Your task to perform on an android device: turn pop-ups off in chrome Image 0: 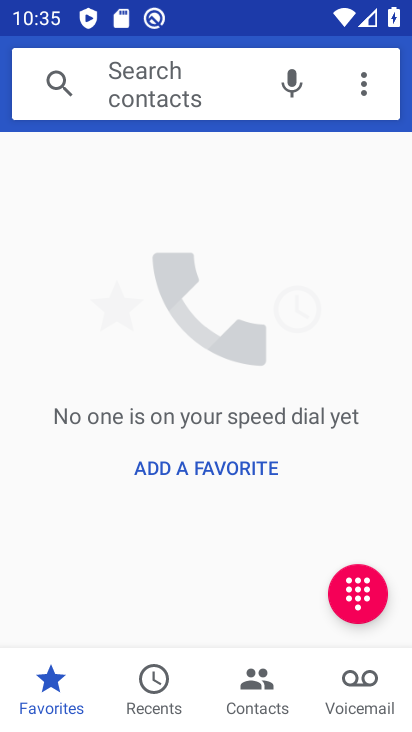
Step 0: press home button
Your task to perform on an android device: turn pop-ups off in chrome Image 1: 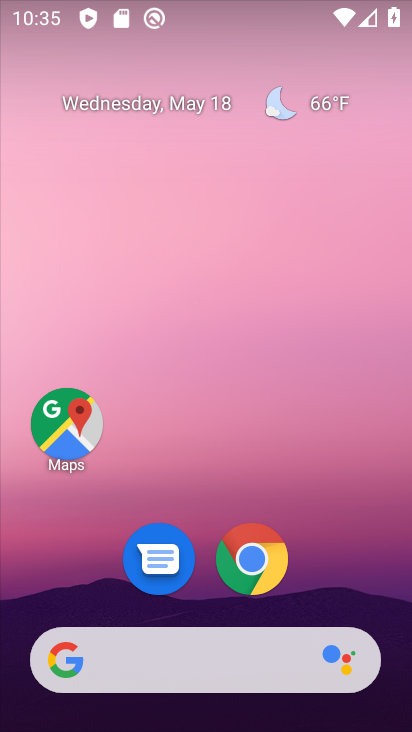
Step 1: click (244, 562)
Your task to perform on an android device: turn pop-ups off in chrome Image 2: 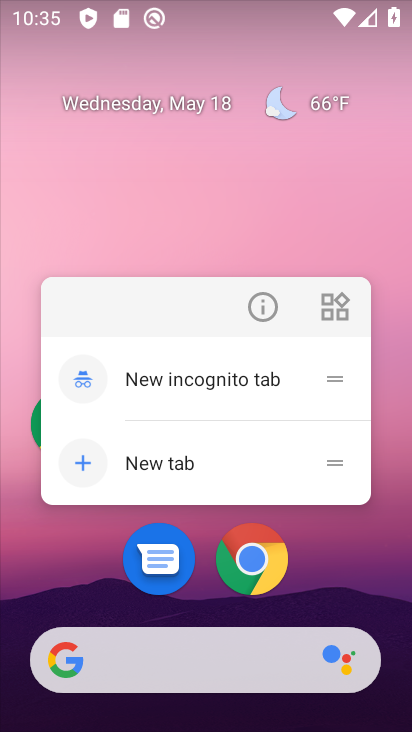
Step 2: click (254, 553)
Your task to perform on an android device: turn pop-ups off in chrome Image 3: 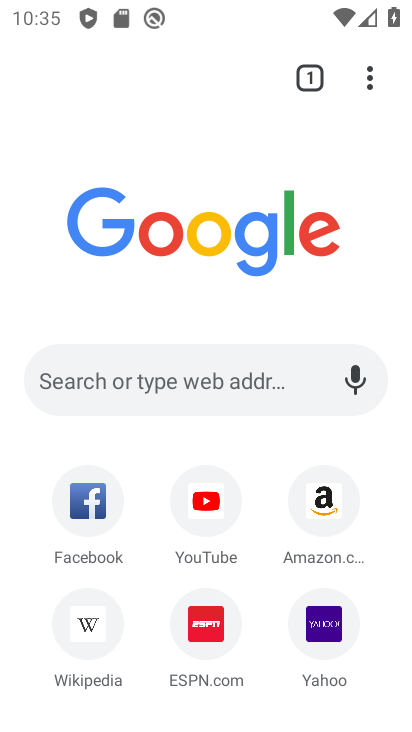
Step 3: click (369, 74)
Your task to perform on an android device: turn pop-ups off in chrome Image 4: 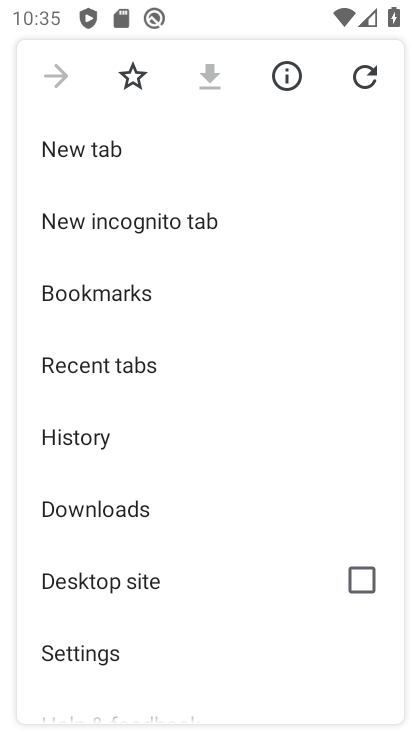
Step 4: click (102, 653)
Your task to perform on an android device: turn pop-ups off in chrome Image 5: 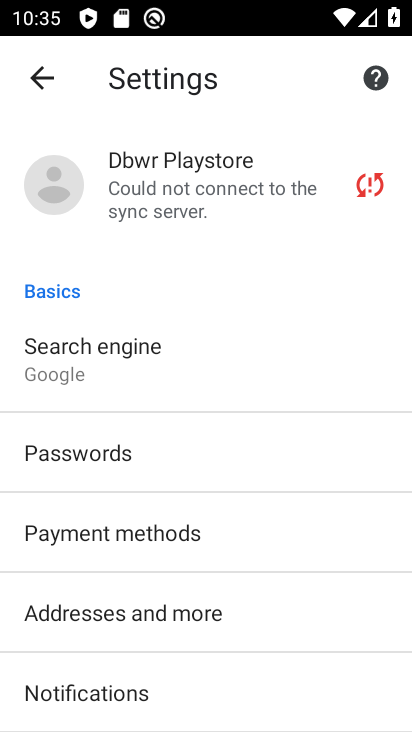
Step 5: drag from (127, 672) to (192, 329)
Your task to perform on an android device: turn pop-ups off in chrome Image 6: 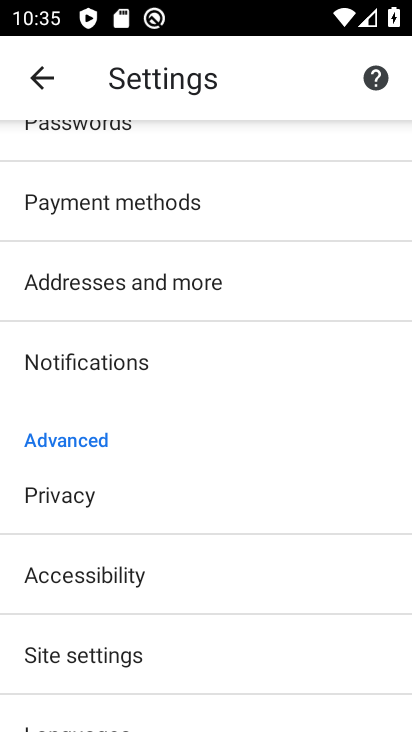
Step 6: click (65, 660)
Your task to perform on an android device: turn pop-ups off in chrome Image 7: 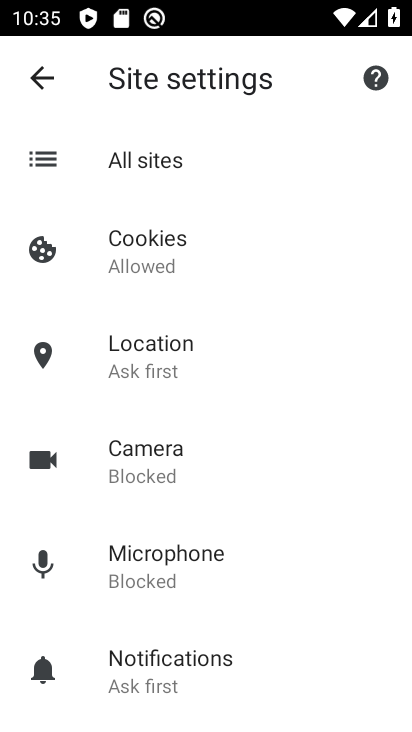
Step 7: drag from (171, 565) to (233, 185)
Your task to perform on an android device: turn pop-ups off in chrome Image 8: 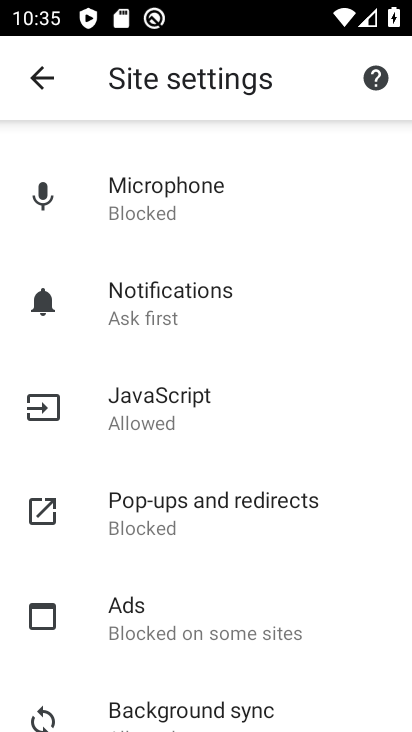
Step 8: click (174, 505)
Your task to perform on an android device: turn pop-ups off in chrome Image 9: 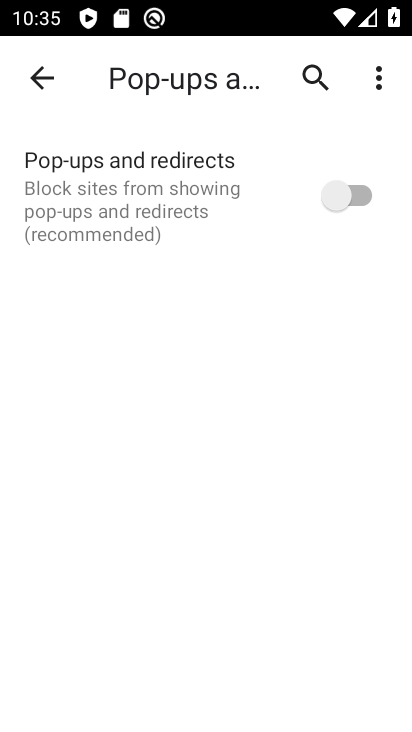
Step 9: task complete